Your task to perform on an android device: turn off airplane mode Image 0: 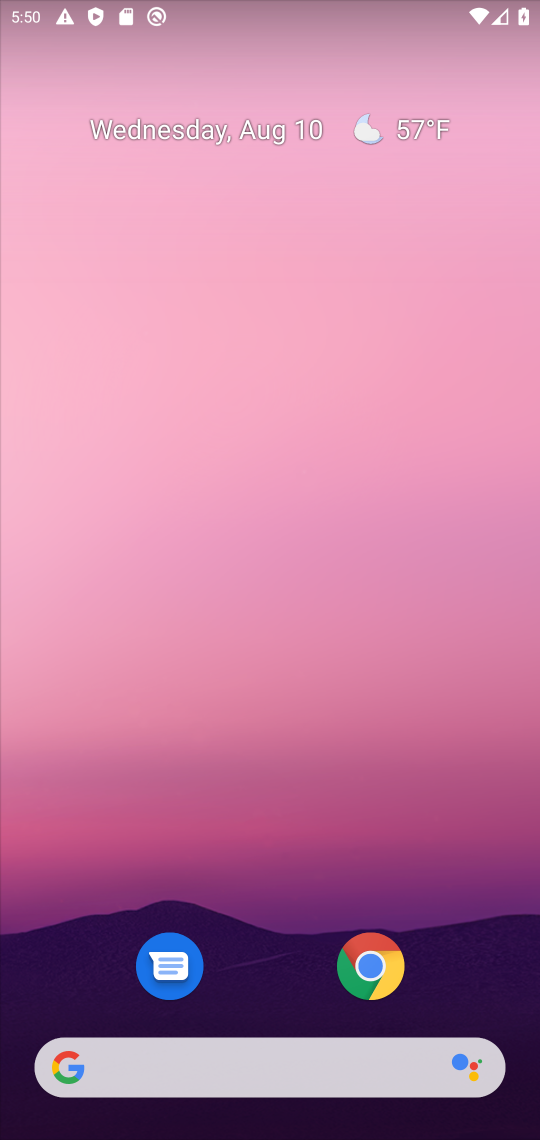
Step 0: press home button
Your task to perform on an android device: turn off airplane mode Image 1: 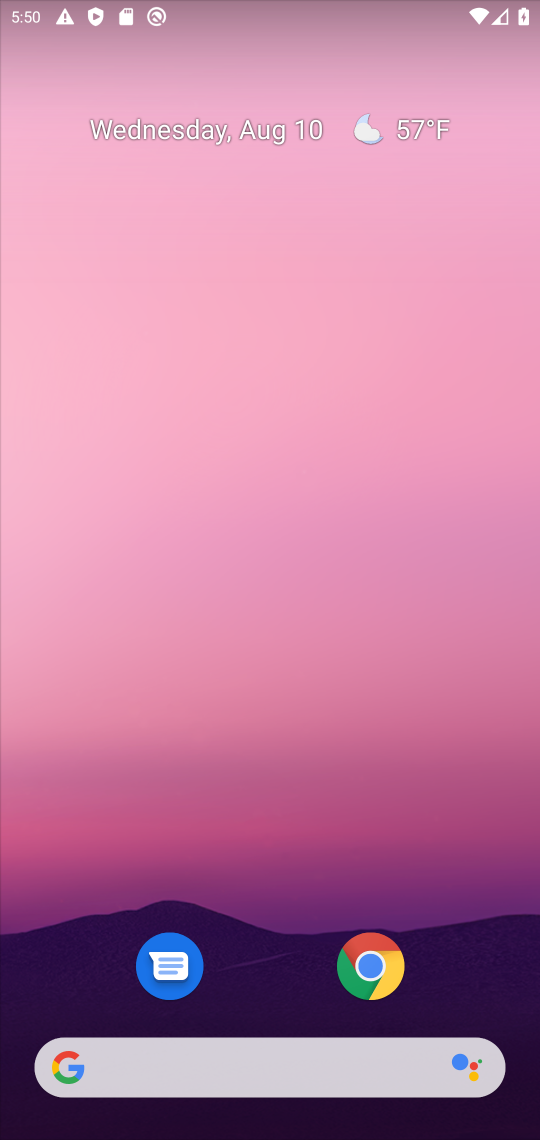
Step 1: task complete